Your task to perform on an android device: see tabs open on other devices in the chrome app Image 0: 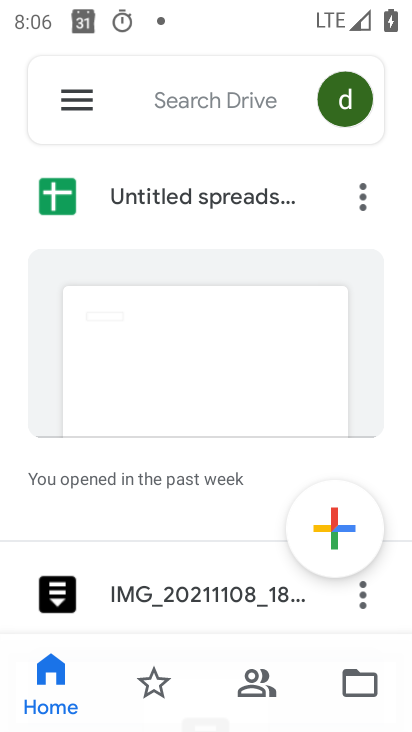
Step 0: press home button
Your task to perform on an android device: see tabs open on other devices in the chrome app Image 1: 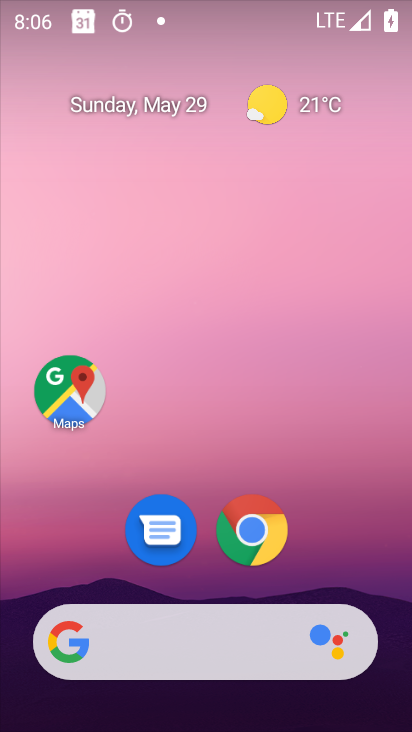
Step 1: drag from (253, 681) to (201, 61)
Your task to perform on an android device: see tabs open on other devices in the chrome app Image 2: 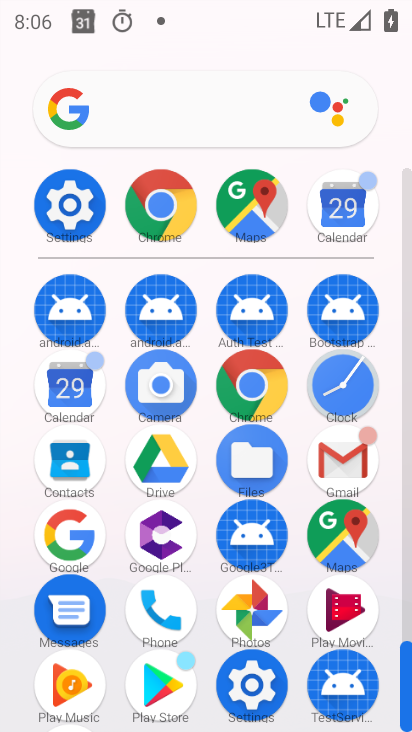
Step 2: click (153, 208)
Your task to perform on an android device: see tabs open on other devices in the chrome app Image 3: 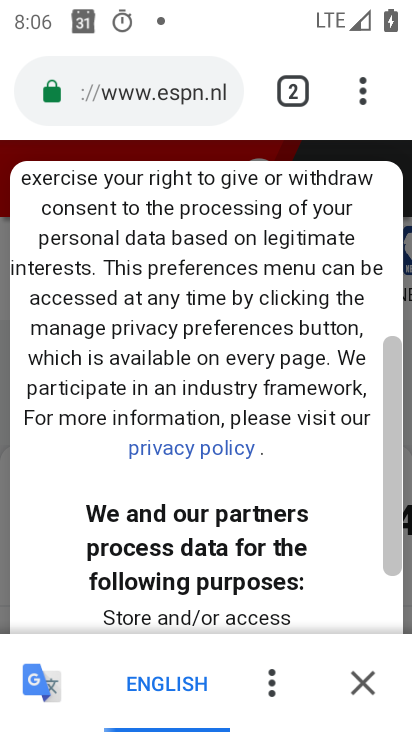
Step 3: click (348, 97)
Your task to perform on an android device: see tabs open on other devices in the chrome app Image 4: 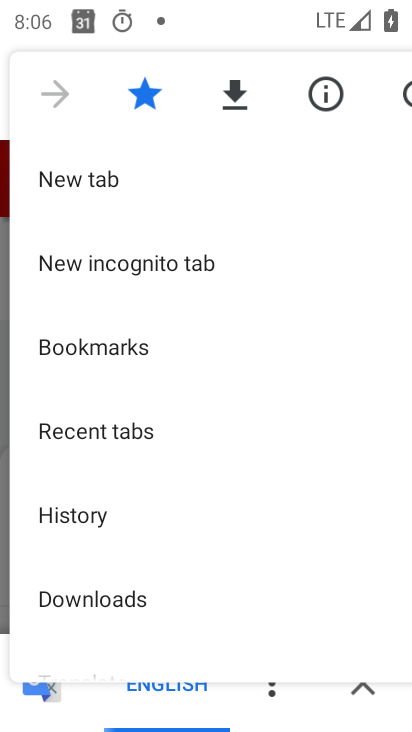
Step 4: drag from (259, 579) to (227, 298)
Your task to perform on an android device: see tabs open on other devices in the chrome app Image 5: 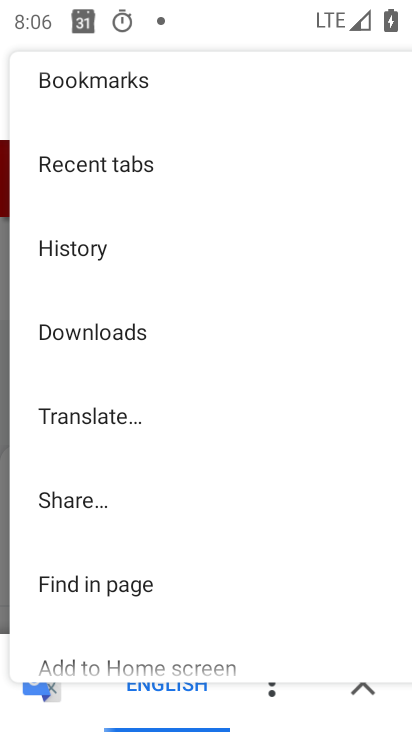
Step 5: drag from (174, 515) to (196, 340)
Your task to perform on an android device: see tabs open on other devices in the chrome app Image 6: 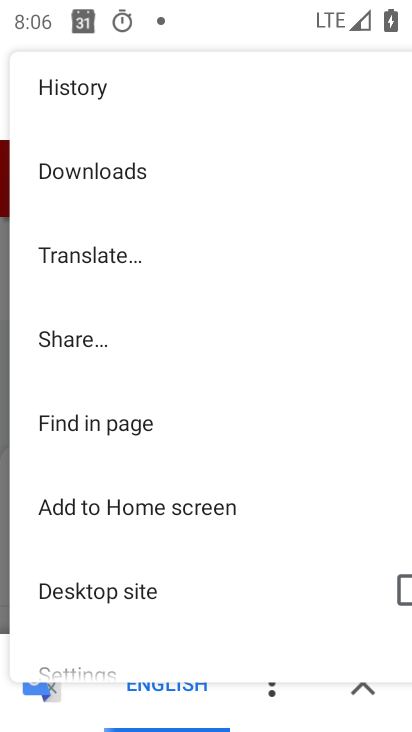
Step 6: press back button
Your task to perform on an android device: see tabs open on other devices in the chrome app Image 7: 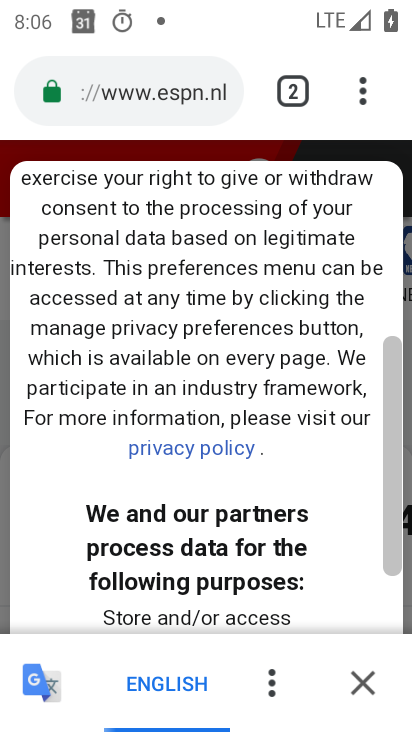
Step 7: click (286, 88)
Your task to perform on an android device: see tabs open on other devices in the chrome app Image 8: 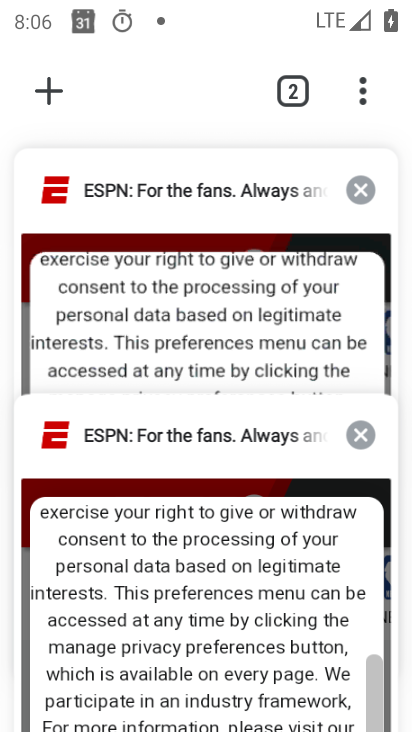
Step 8: click (48, 82)
Your task to perform on an android device: see tabs open on other devices in the chrome app Image 9: 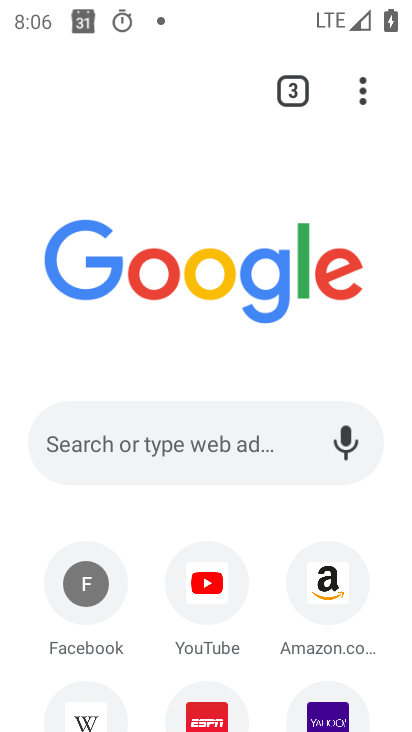
Step 9: task complete